Your task to perform on an android device: turn vacation reply on in the gmail app Image 0: 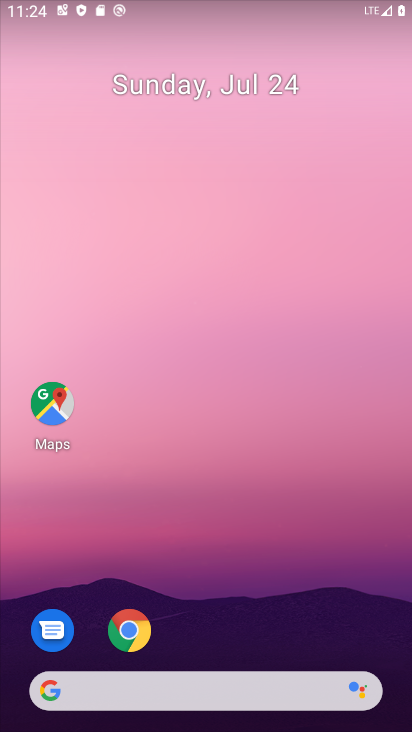
Step 0: drag from (217, 623) to (299, 174)
Your task to perform on an android device: turn vacation reply on in the gmail app Image 1: 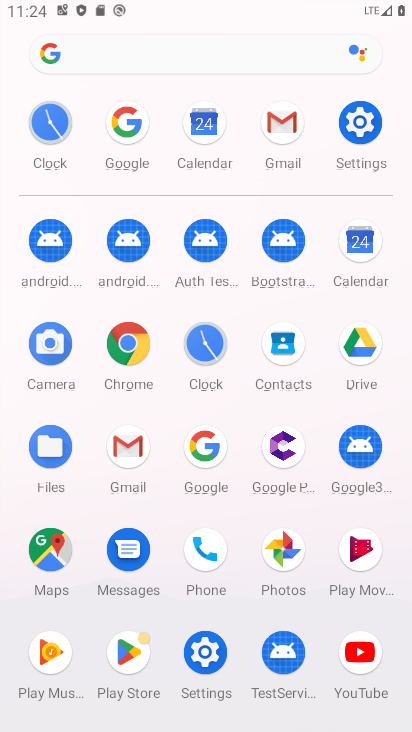
Step 1: click (279, 109)
Your task to perform on an android device: turn vacation reply on in the gmail app Image 2: 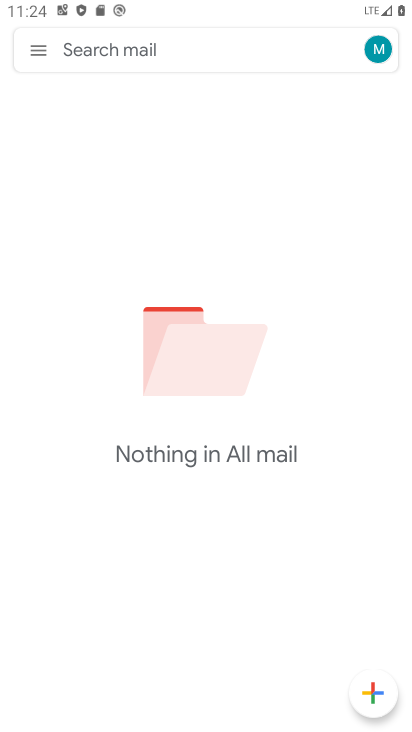
Step 2: click (47, 71)
Your task to perform on an android device: turn vacation reply on in the gmail app Image 3: 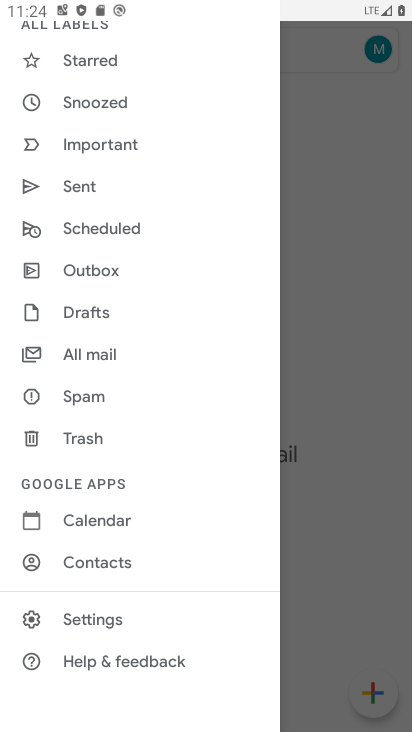
Step 3: click (101, 625)
Your task to perform on an android device: turn vacation reply on in the gmail app Image 4: 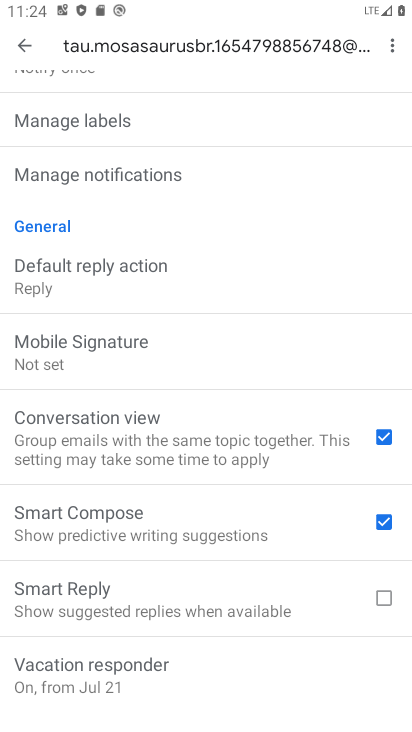
Step 4: click (221, 664)
Your task to perform on an android device: turn vacation reply on in the gmail app Image 5: 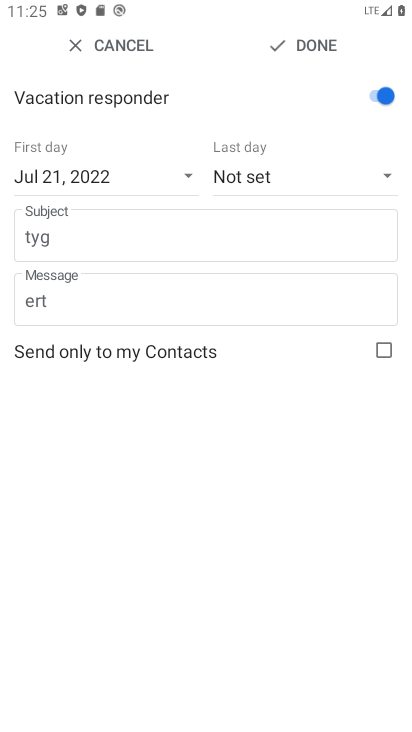
Step 5: task complete